Your task to perform on an android device: turn on priority inbox in the gmail app Image 0: 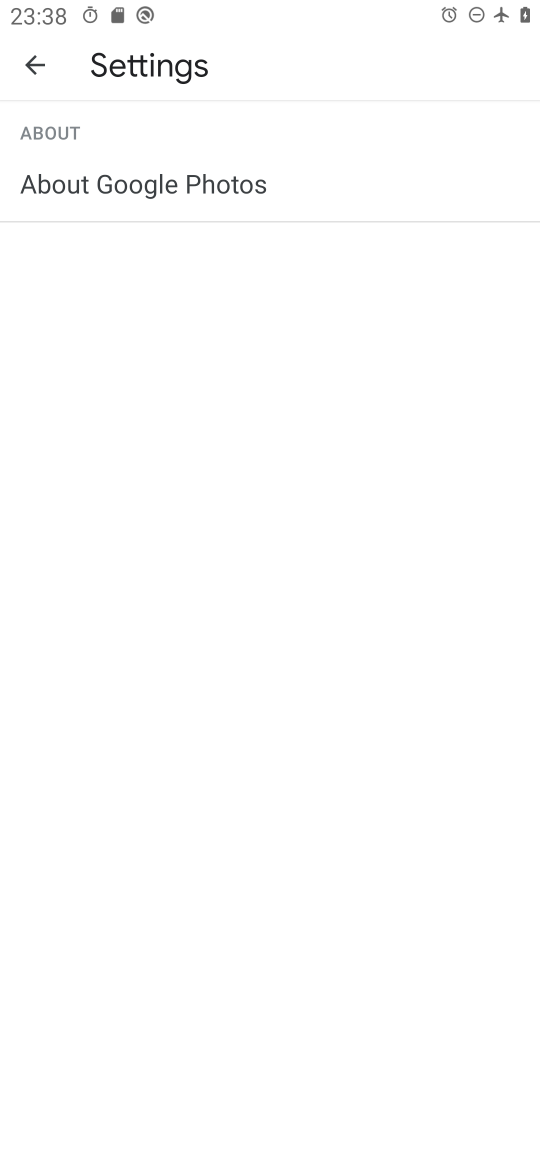
Step 0: press home button
Your task to perform on an android device: turn on priority inbox in the gmail app Image 1: 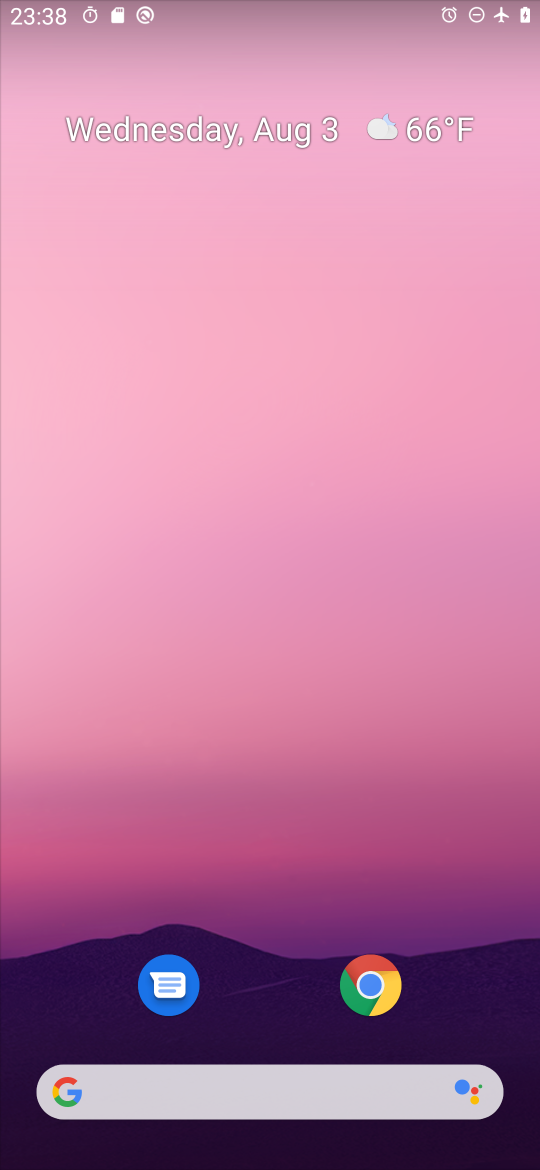
Step 1: drag from (279, 938) to (279, 281)
Your task to perform on an android device: turn on priority inbox in the gmail app Image 2: 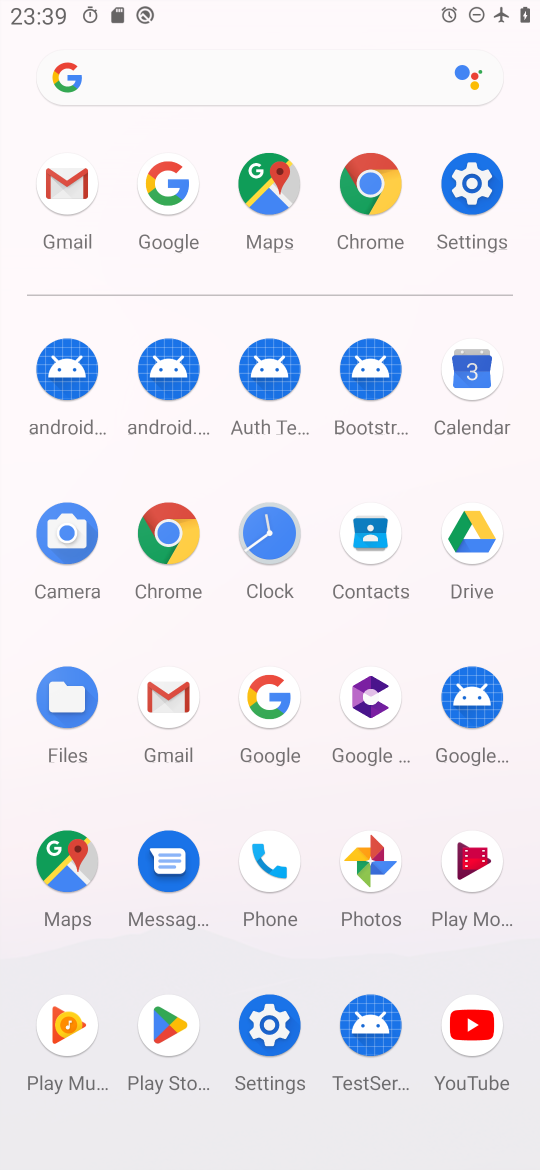
Step 2: click (59, 207)
Your task to perform on an android device: turn on priority inbox in the gmail app Image 3: 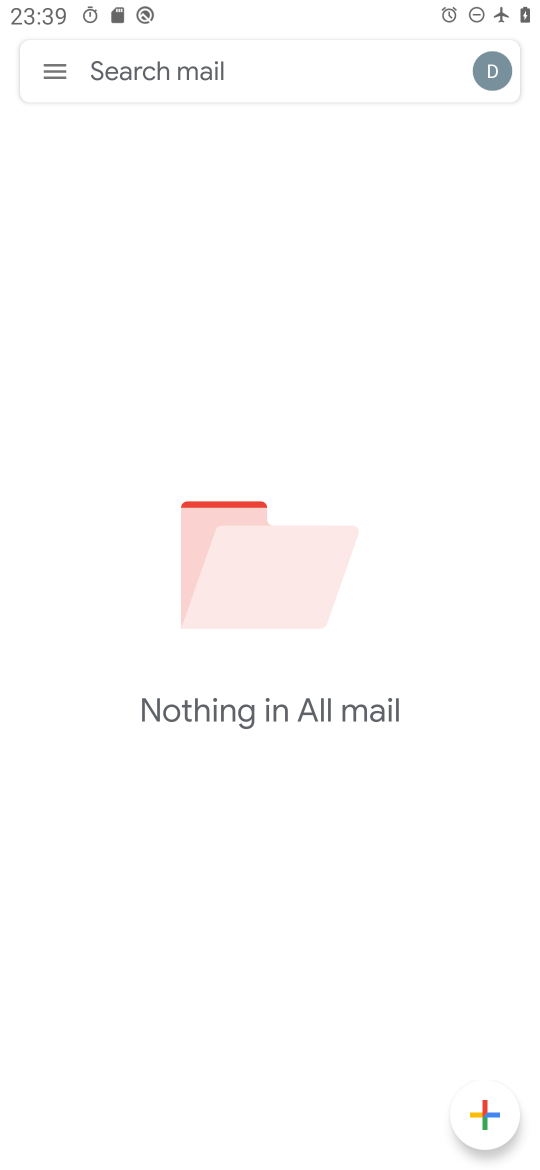
Step 3: click (54, 70)
Your task to perform on an android device: turn on priority inbox in the gmail app Image 4: 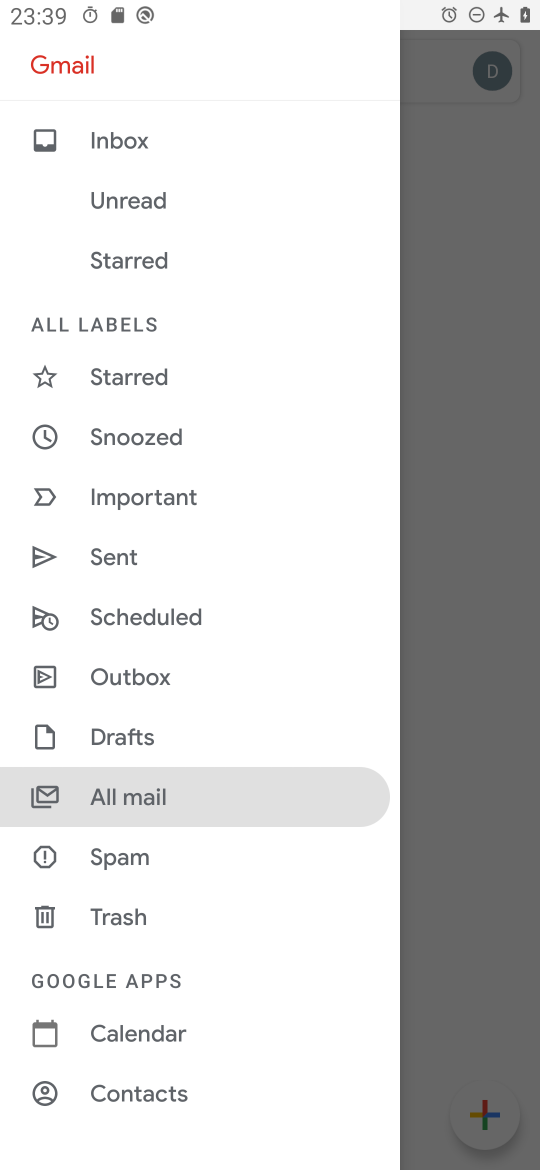
Step 4: drag from (170, 1003) to (138, 353)
Your task to perform on an android device: turn on priority inbox in the gmail app Image 5: 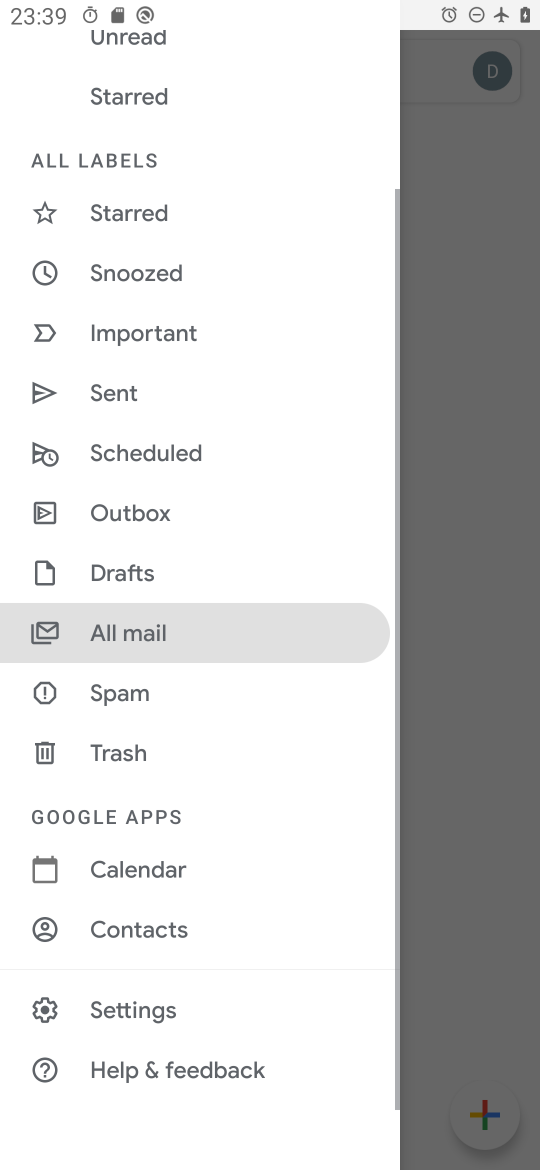
Step 5: click (150, 1004)
Your task to perform on an android device: turn on priority inbox in the gmail app Image 6: 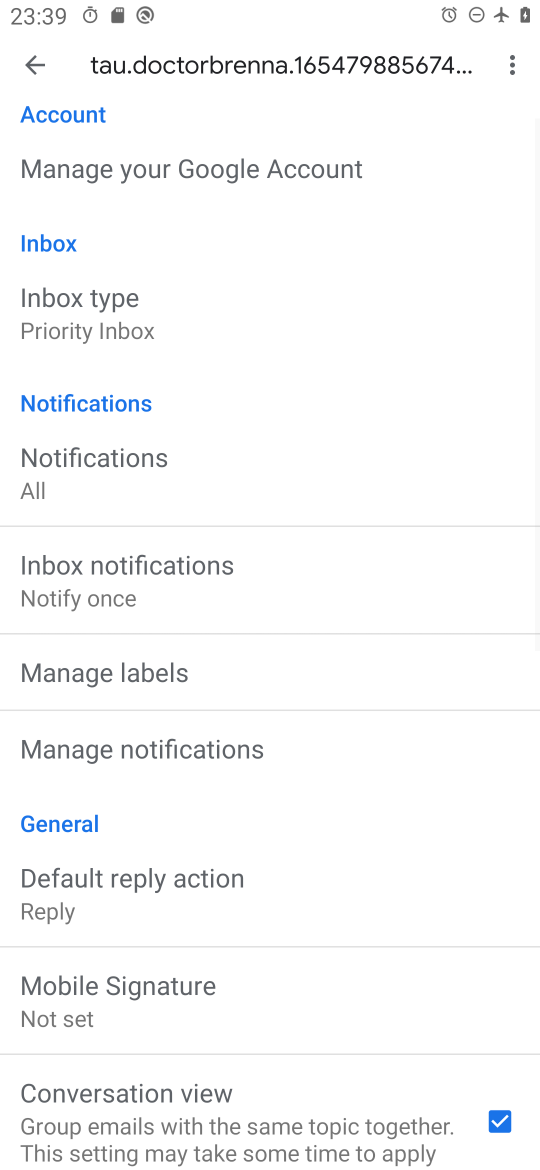
Step 6: click (142, 326)
Your task to perform on an android device: turn on priority inbox in the gmail app Image 7: 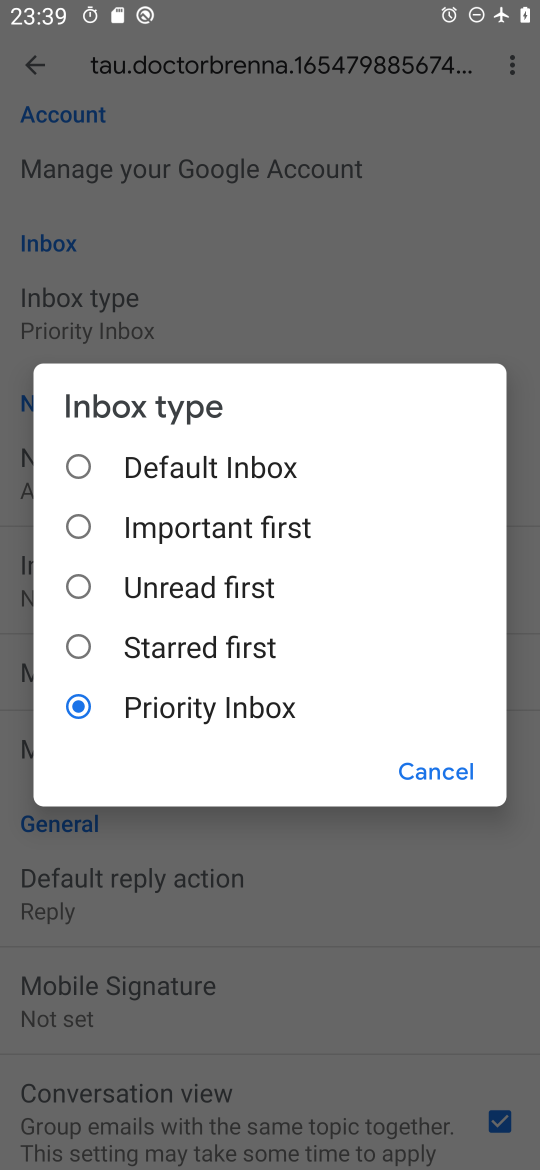
Step 7: task complete